Your task to perform on an android device: turn on sleep mode Image 0: 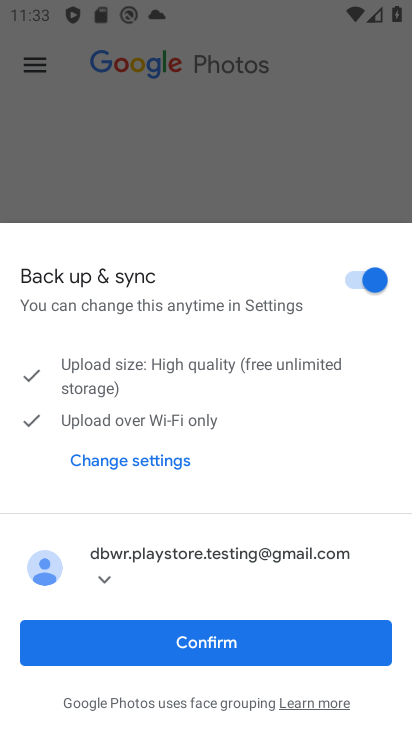
Step 0: press home button
Your task to perform on an android device: turn on sleep mode Image 1: 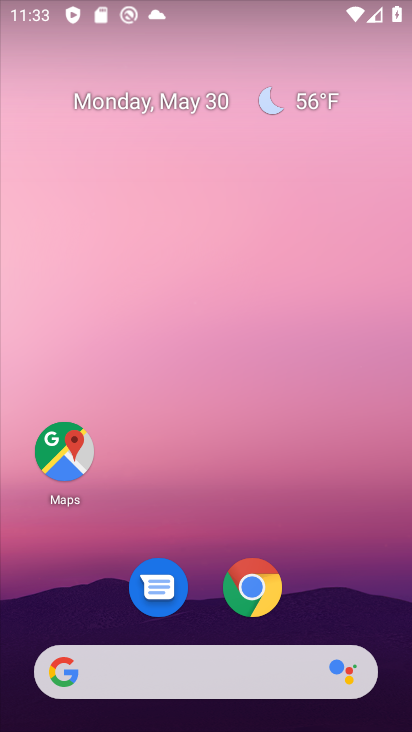
Step 1: drag from (384, 568) to (245, 90)
Your task to perform on an android device: turn on sleep mode Image 2: 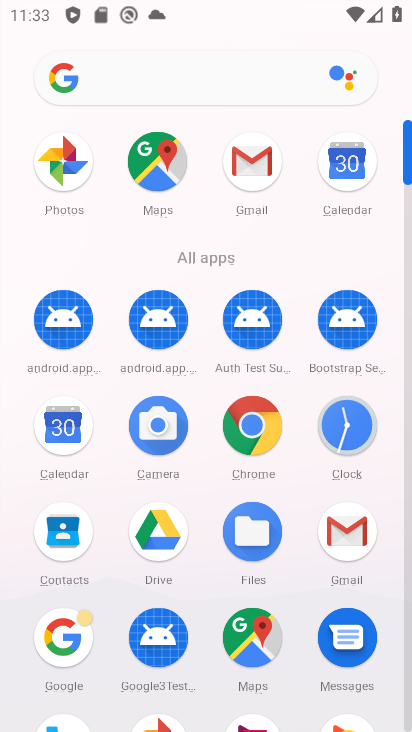
Step 2: click (410, 674)
Your task to perform on an android device: turn on sleep mode Image 3: 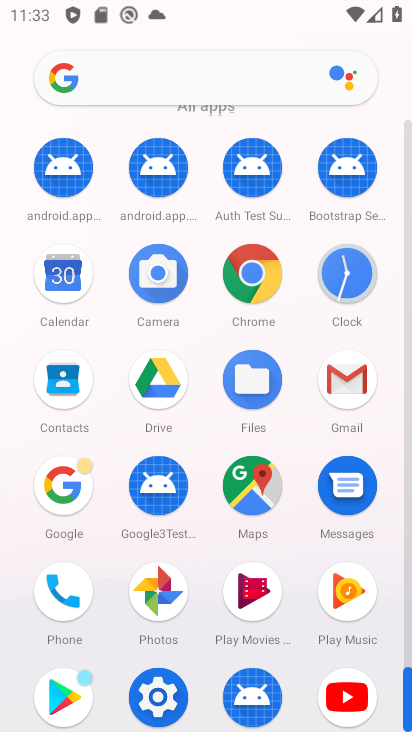
Step 3: click (153, 675)
Your task to perform on an android device: turn on sleep mode Image 4: 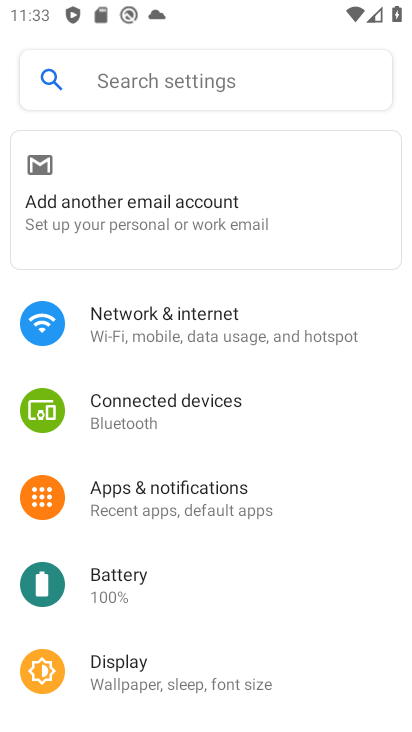
Step 4: click (222, 683)
Your task to perform on an android device: turn on sleep mode Image 5: 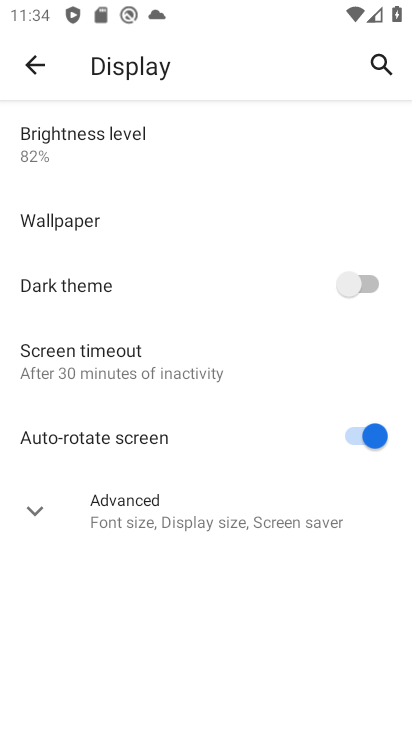
Step 5: click (225, 519)
Your task to perform on an android device: turn on sleep mode Image 6: 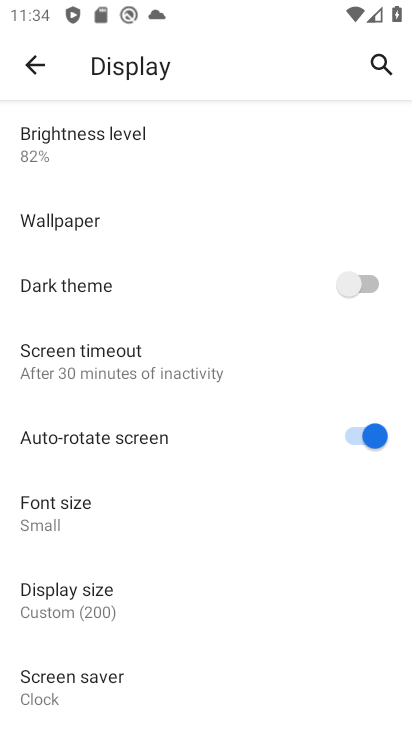
Step 6: task complete